Your task to perform on an android device: set the stopwatch Image 0: 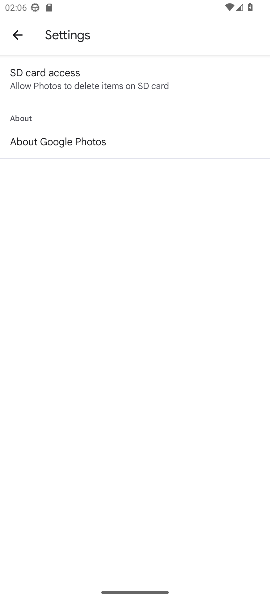
Step 0: press home button
Your task to perform on an android device: set the stopwatch Image 1: 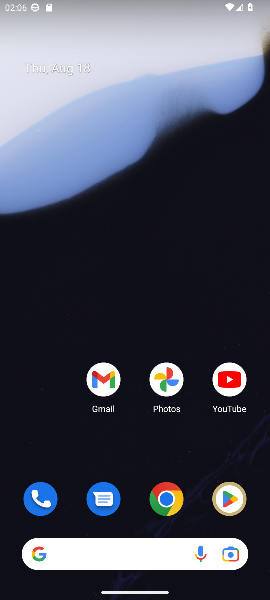
Step 1: drag from (142, 467) to (112, 81)
Your task to perform on an android device: set the stopwatch Image 2: 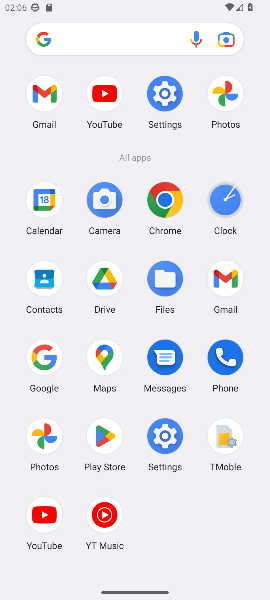
Step 2: click (219, 209)
Your task to perform on an android device: set the stopwatch Image 3: 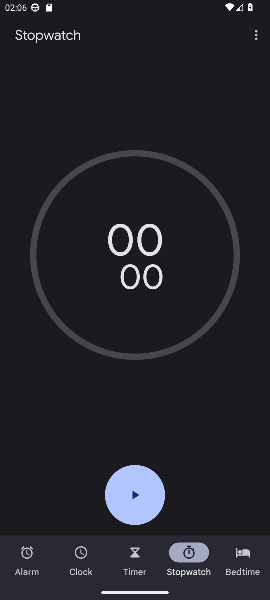
Step 3: task complete